Your task to perform on an android device: toggle data saver in the chrome app Image 0: 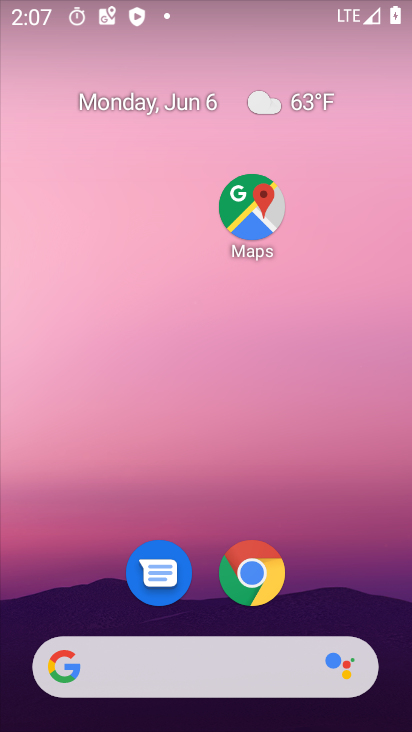
Step 0: click (253, 581)
Your task to perform on an android device: toggle data saver in the chrome app Image 1: 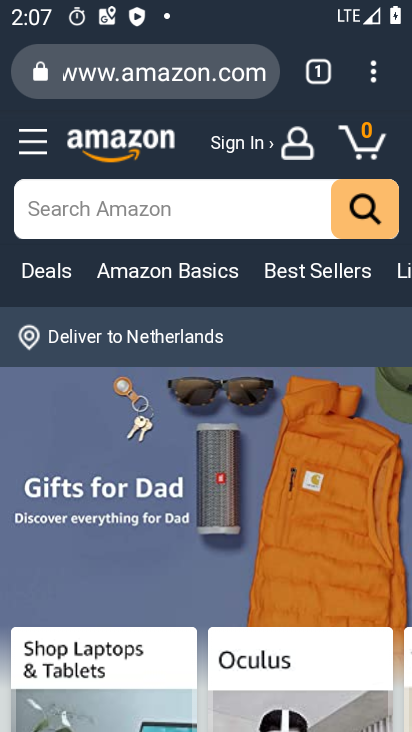
Step 1: click (371, 77)
Your task to perform on an android device: toggle data saver in the chrome app Image 2: 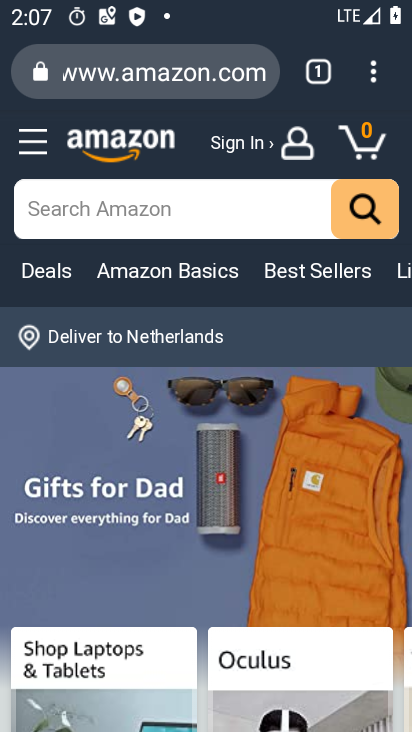
Step 2: click (375, 72)
Your task to perform on an android device: toggle data saver in the chrome app Image 3: 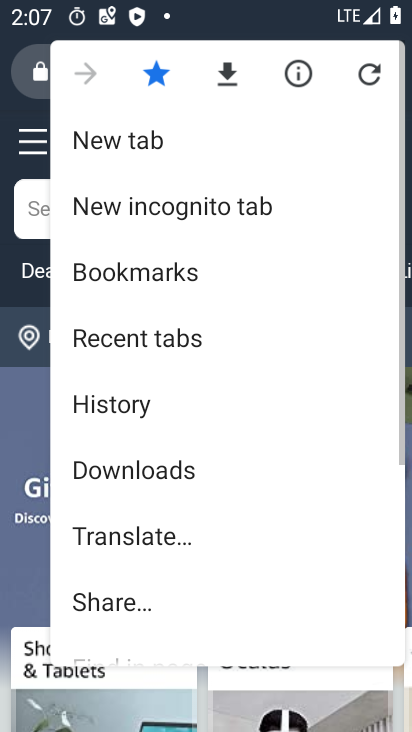
Step 3: drag from (84, 626) to (195, 105)
Your task to perform on an android device: toggle data saver in the chrome app Image 4: 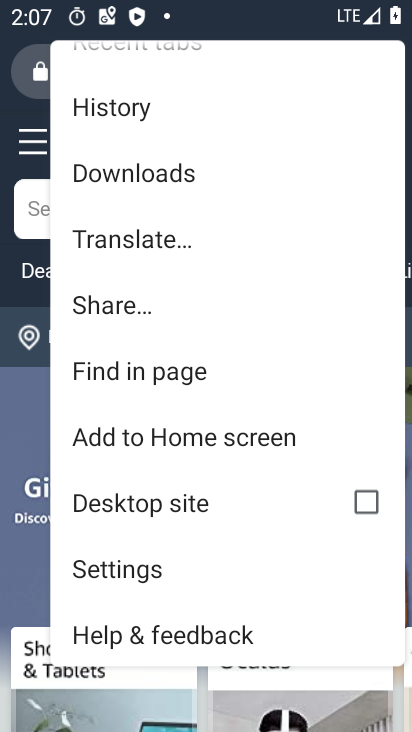
Step 4: click (122, 578)
Your task to perform on an android device: toggle data saver in the chrome app Image 5: 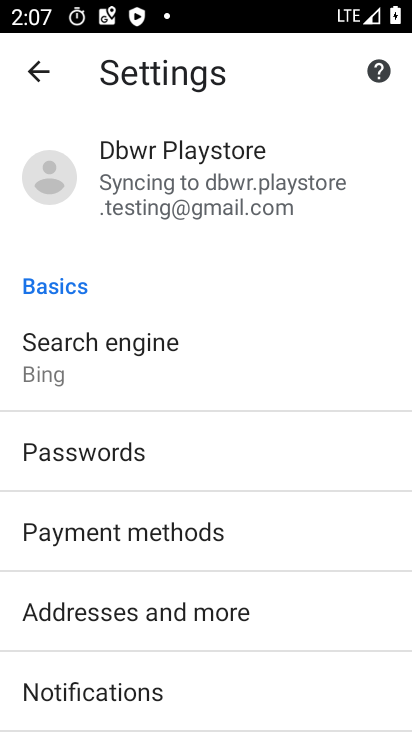
Step 5: drag from (12, 641) to (214, 76)
Your task to perform on an android device: toggle data saver in the chrome app Image 6: 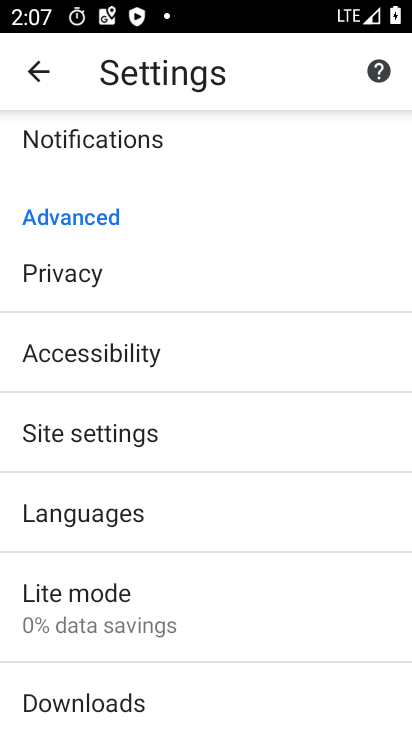
Step 6: click (108, 598)
Your task to perform on an android device: toggle data saver in the chrome app Image 7: 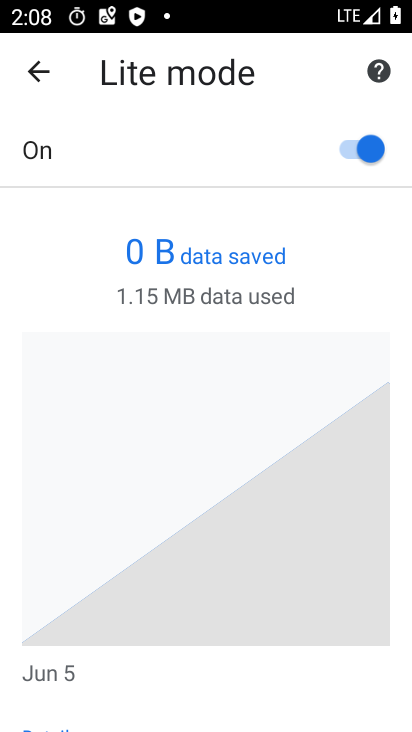
Step 7: click (370, 159)
Your task to perform on an android device: toggle data saver in the chrome app Image 8: 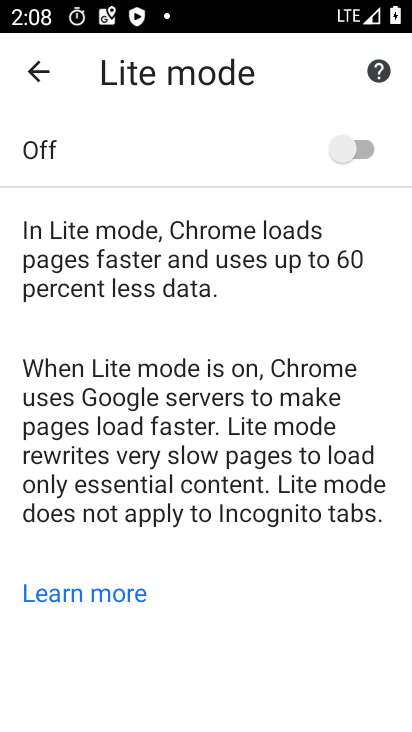
Step 8: task complete